Your task to perform on an android device: Open Maps and search for coffee Image 0: 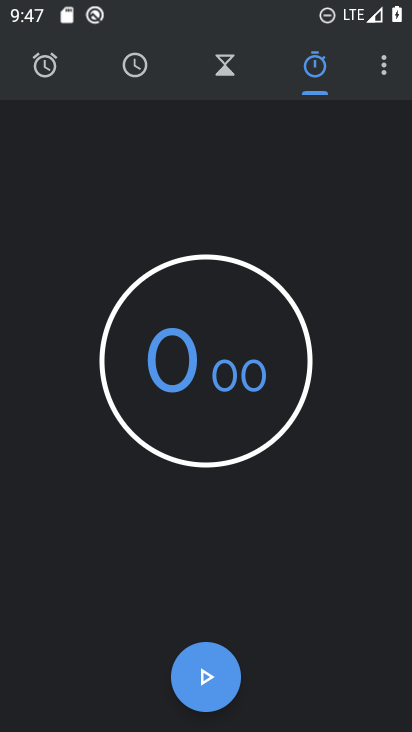
Step 0: press home button
Your task to perform on an android device: Open Maps and search for coffee Image 1: 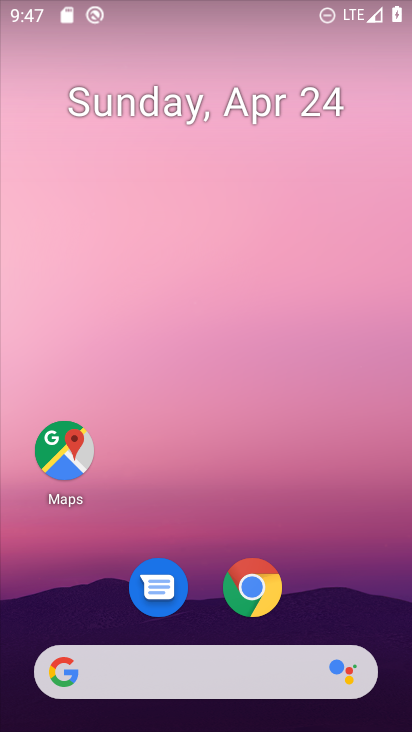
Step 1: drag from (341, 520) to (299, 176)
Your task to perform on an android device: Open Maps and search for coffee Image 2: 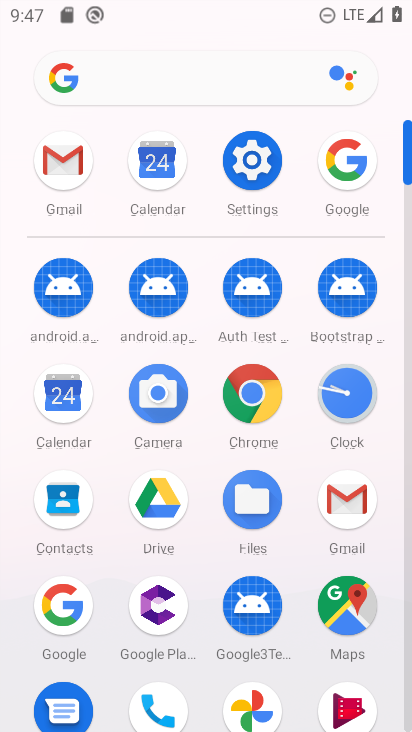
Step 2: click (356, 623)
Your task to perform on an android device: Open Maps and search for coffee Image 3: 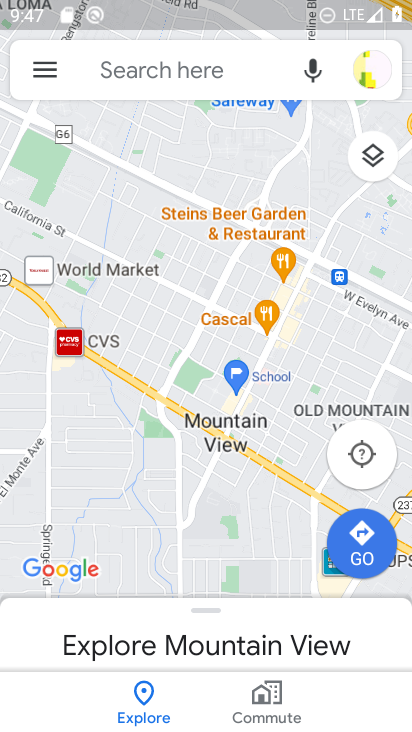
Step 3: click (189, 70)
Your task to perform on an android device: Open Maps and search for coffee Image 4: 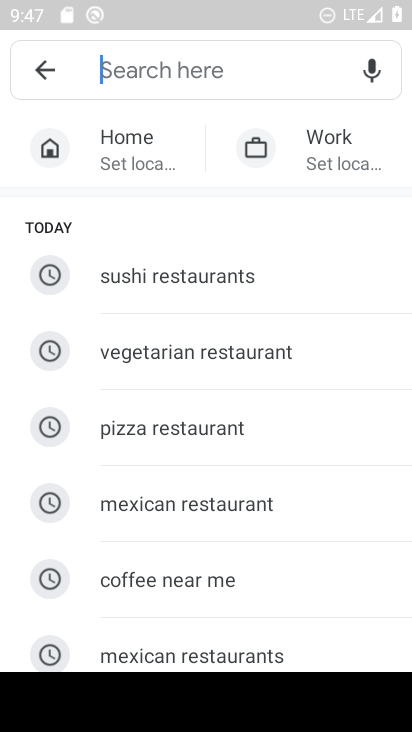
Step 4: type "coffee"
Your task to perform on an android device: Open Maps and search for coffee Image 5: 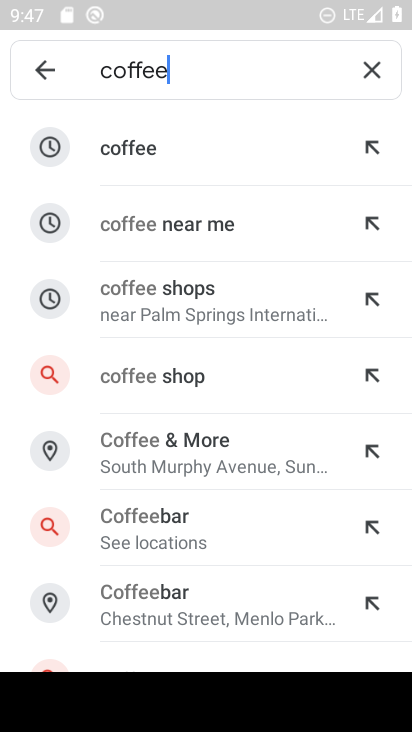
Step 5: click (146, 158)
Your task to perform on an android device: Open Maps and search for coffee Image 6: 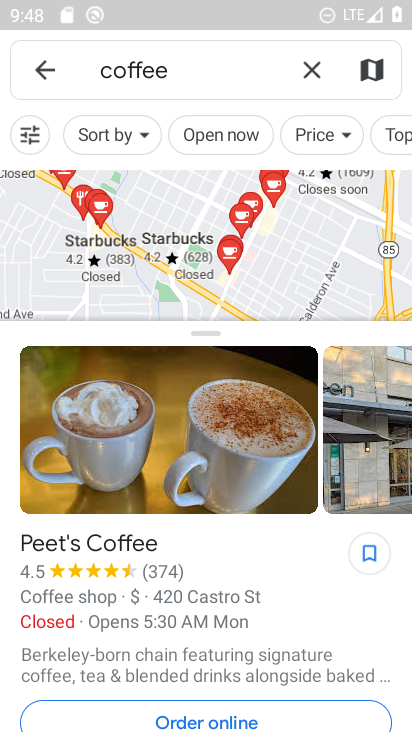
Step 6: task complete